Your task to perform on an android device: check battery use Image 0: 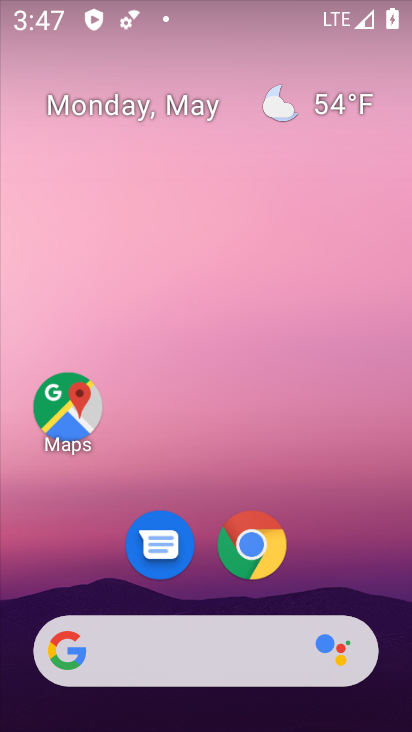
Step 0: drag from (391, 660) to (266, 169)
Your task to perform on an android device: check battery use Image 1: 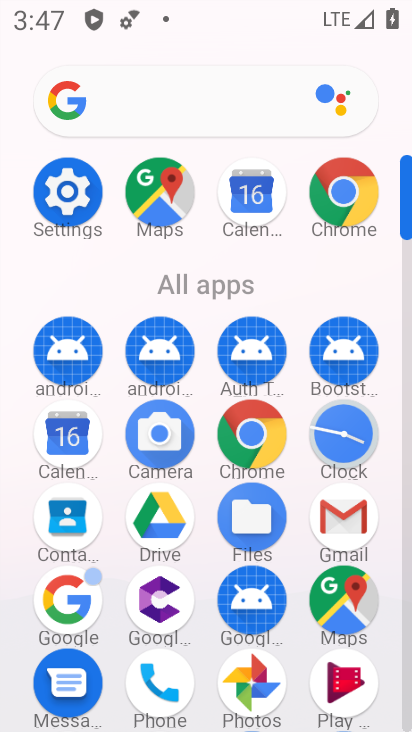
Step 1: click (408, 691)
Your task to perform on an android device: check battery use Image 2: 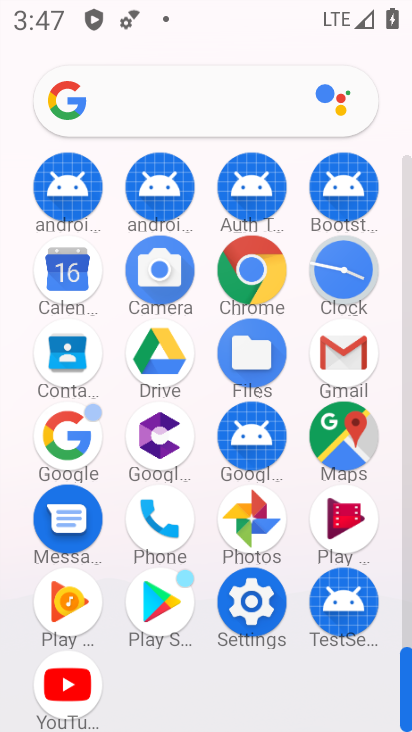
Step 2: click (247, 604)
Your task to perform on an android device: check battery use Image 3: 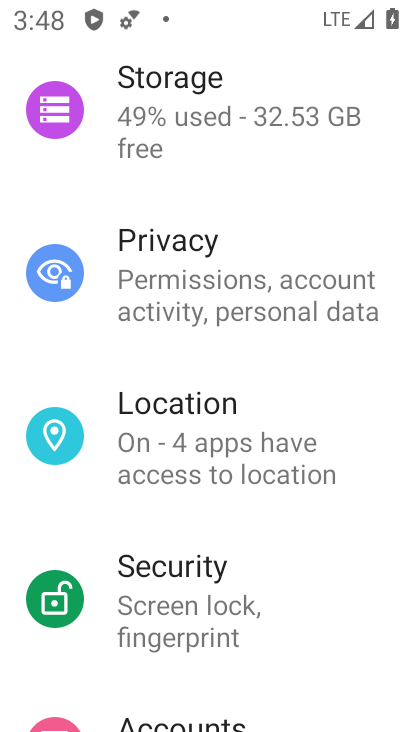
Step 3: drag from (347, 194) to (363, 503)
Your task to perform on an android device: check battery use Image 4: 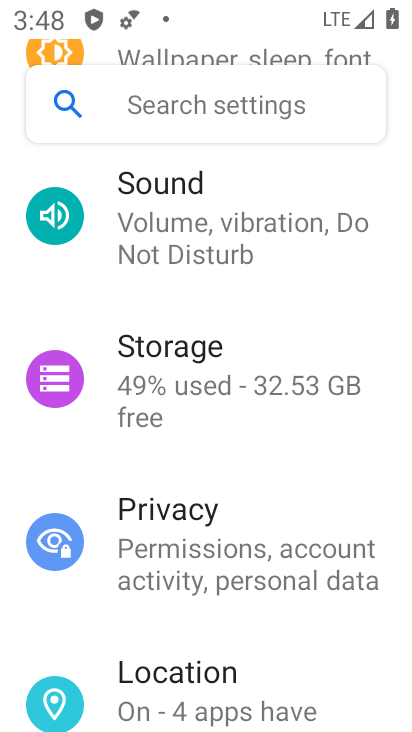
Step 4: drag from (314, 241) to (381, 579)
Your task to perform on an android device: check battery use Image 5: 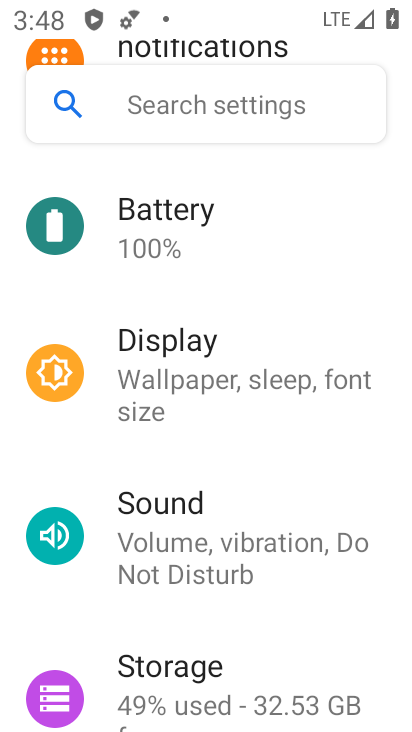
Step 5: drag from (315, 288) to (382, 570)
Your task to perform on an android device: check battery use Image 6: 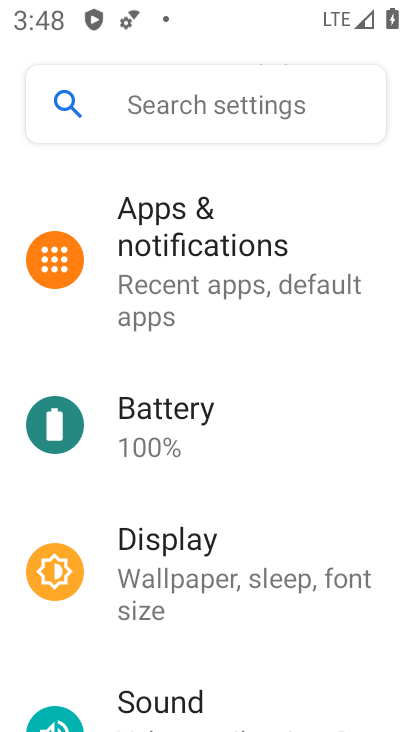
Step 6: click (140, 420)
Your task to perform on an android device: check battery use Image 7: 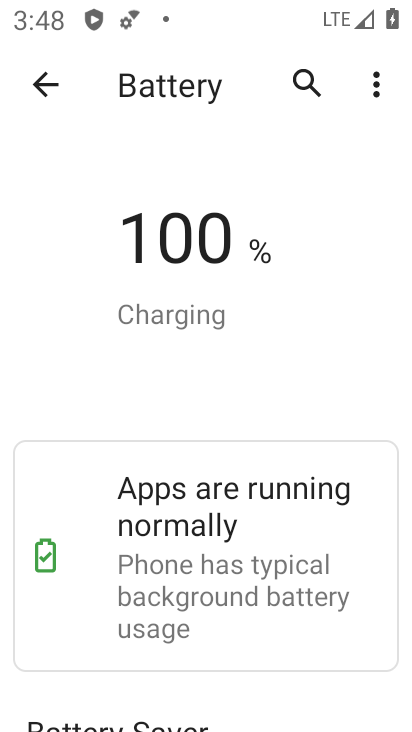
Step 7: drag from (332, 660) to (293, 307)
Your task to perform on an android device: check battery use Image 8: 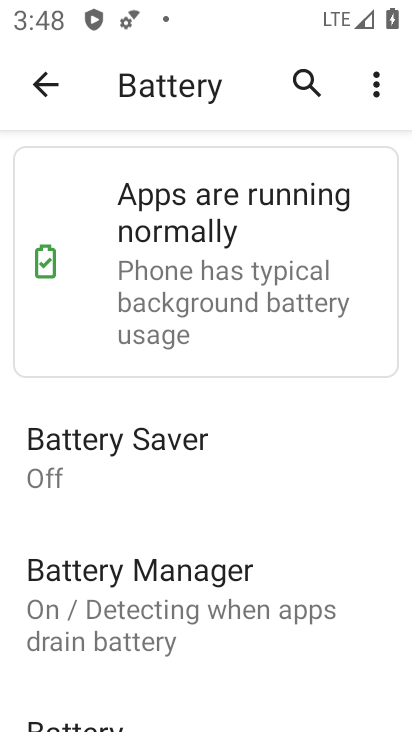
Step 8: drag from (343, 549) to (271, 187)
Your task to perform on an android device: check battery use Image 9: 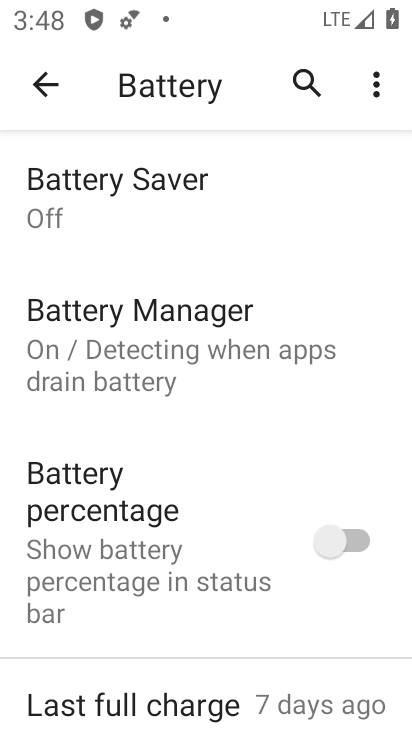
Step 9: click (372, 89)
Your task to perform on an android device: check battery use Image 10: 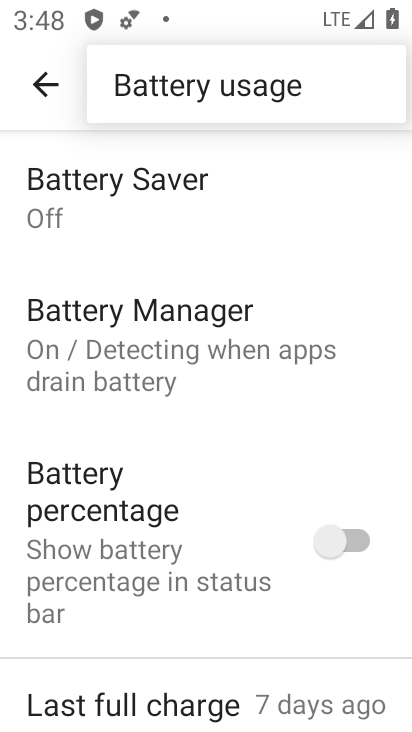
Step 10: click (175, 87)
Your task to perform on an android device: check battery use Image 11: 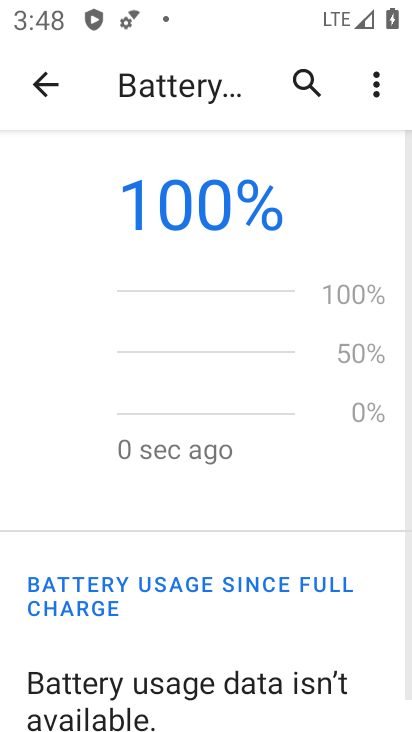
Step 11: task complete